Your task to perform on an android device: Search for sushi restaurants on Maps Image 0: 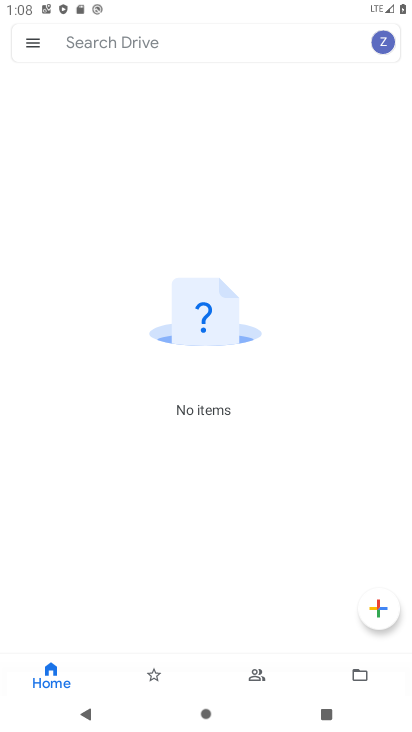
Step 0: press home button
Your task to perform on an android device: Search for sushi restaurants on Maps Image 1: 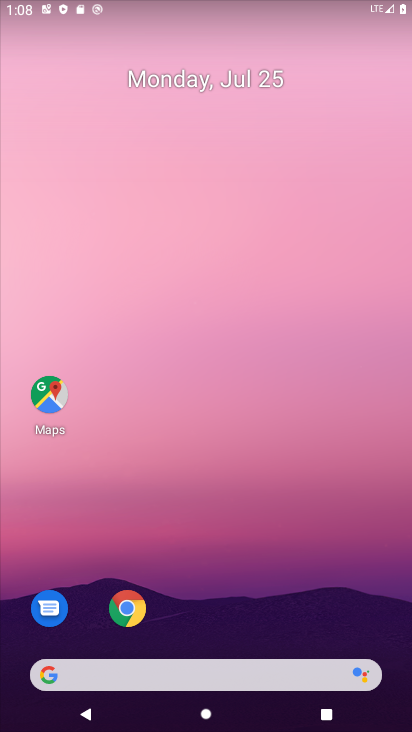
Step 1: click (45, 395)
Your task to perform on an android device: Search for sushi restaurants on Maps Image 2: 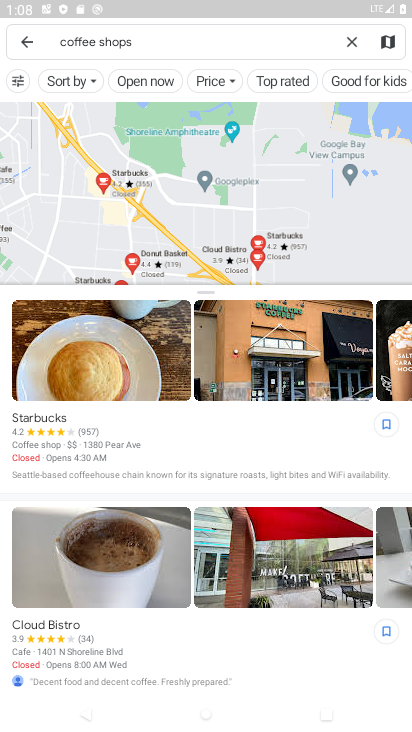
Step 2: click (123, 38)
Your task to perform on an android device: Search for sushi restaurants on Maps Image 3: 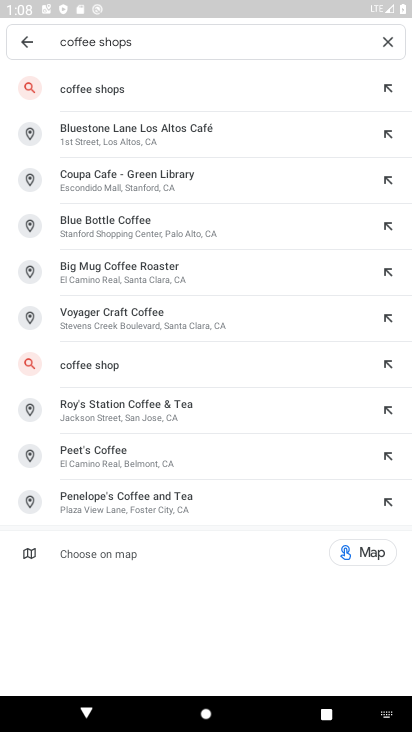
Step 3: click (386, 38)
Your task to perform on an android device: Search for sushi restaurants on Maps Image 4: 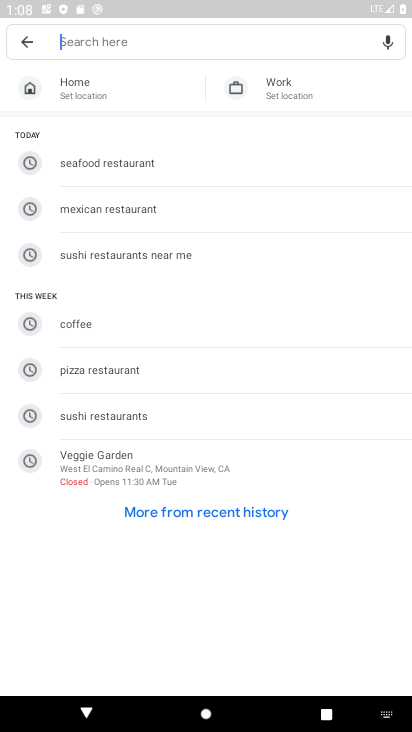
Step 4: type "sushi restaurants"
Your task to perform on an android device: Search for sushi restaurants on Maps Image 5: 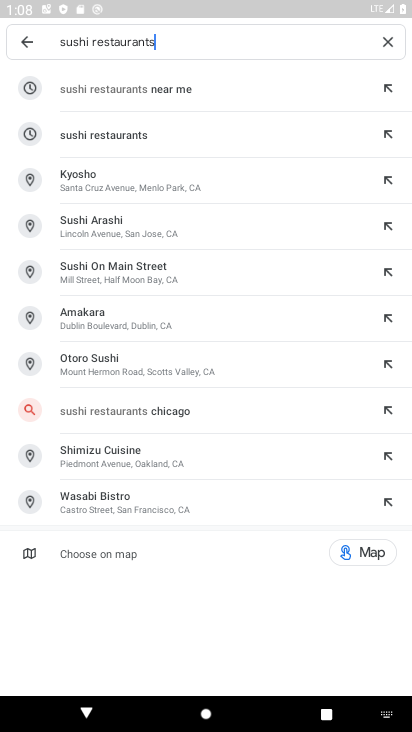
Step 5: click (102, 143)
Your task to perform on an android device: Search for sushi restaurants on Maps Image 6: 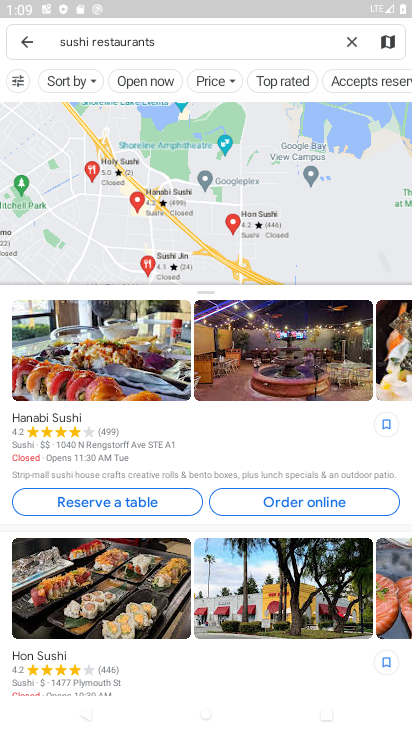
Step 6: task complete